Your task to perform on an android device: Go to privacy settings Image 0: 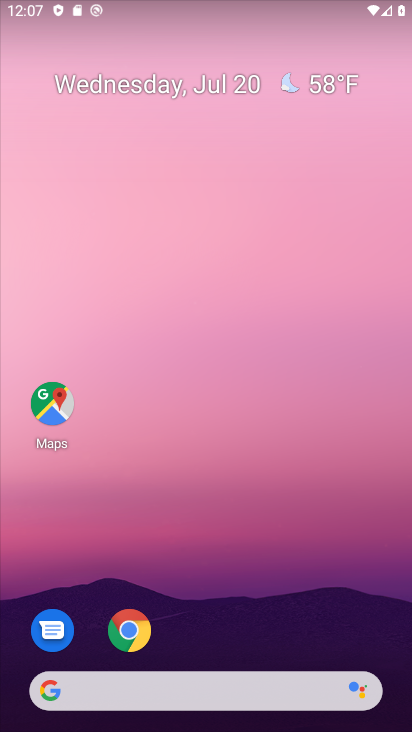
Step 0: press home button
Your task to perform on an android device: Go to privacy settings Image 1: 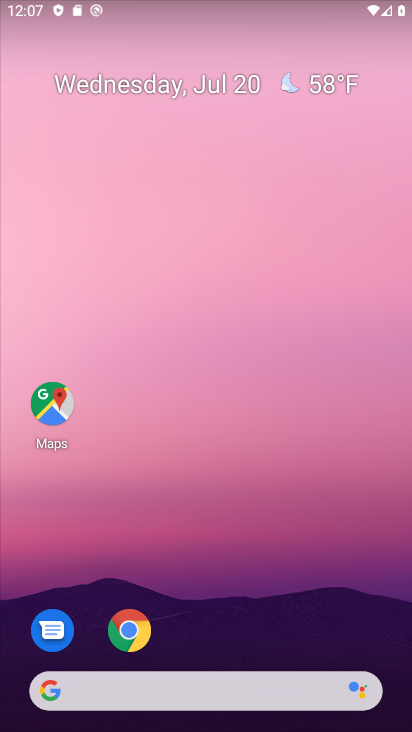
Step 1: drag from (175, 688) to (350, 157)
Your task to perform on an android device: Go to privacy settings Image 2: 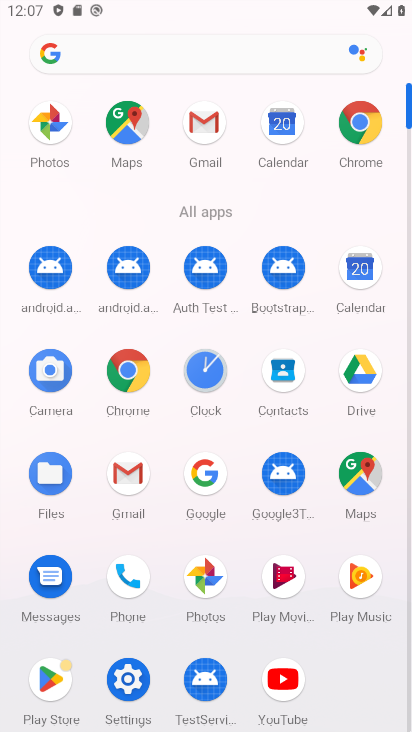
Step 2: click (128, 677)
Your task to perform on an android device: Go to privacy settings Image 3: 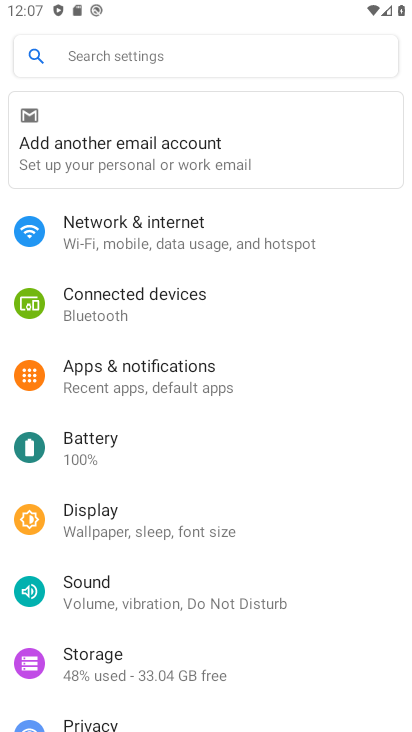
Step 3: drag from (290, 638) to (349, 213)
Your task to perform on an android device: Go to privacy settings Image 4: 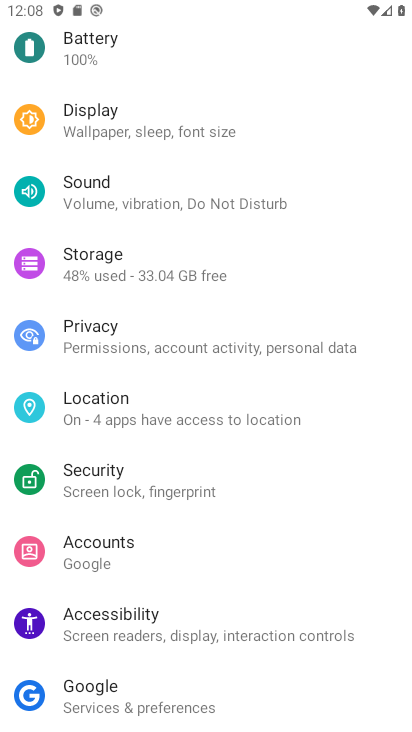
Step 4: click (84, 342)
Your task to perform on an android device: Go to privacy settings Image 5: 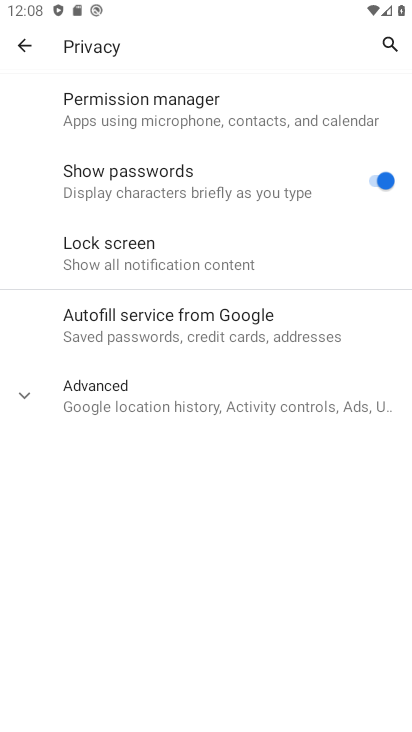
Step 5: task complete